Your task to perform on an android device: manage bookmarks in the chrome app Image 0: 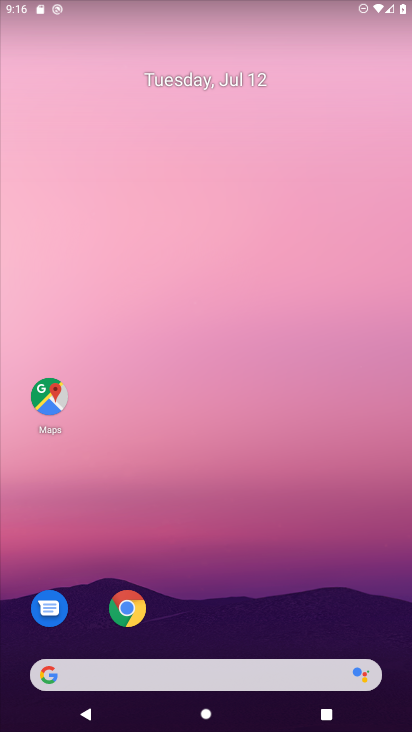
Step 0: click (130, 617)
Your task to perform on an android device: manage bookmarks in the chrome app Image 1: 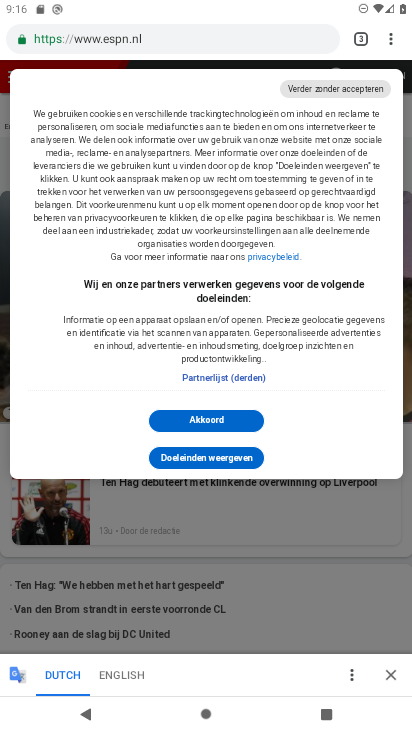
Step 1: click (382, 38)
Your task to perform on an android device: manage bookmarks in the chrome app Image 2: 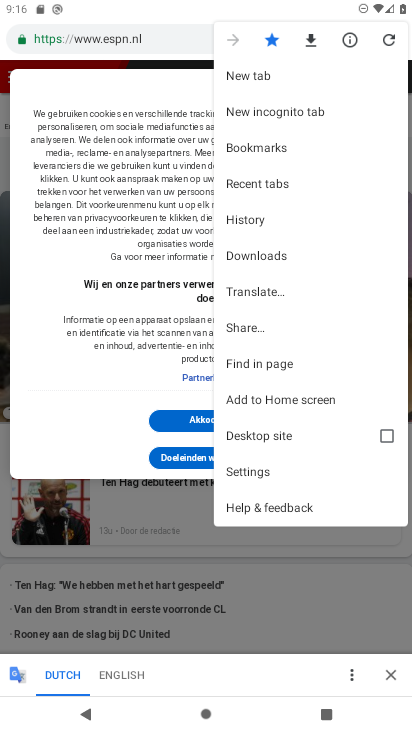
Step 2: click (268, 160)
Your task to perform on an android device: manage bookmarks in the chrome app Image 3: 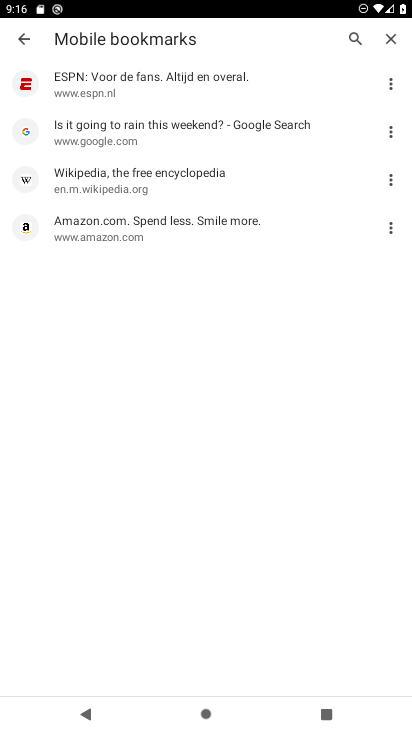
Step 3: click (388, 179)
Your task to perform on an android device: manage bookmarks in the chrome app Image 4: 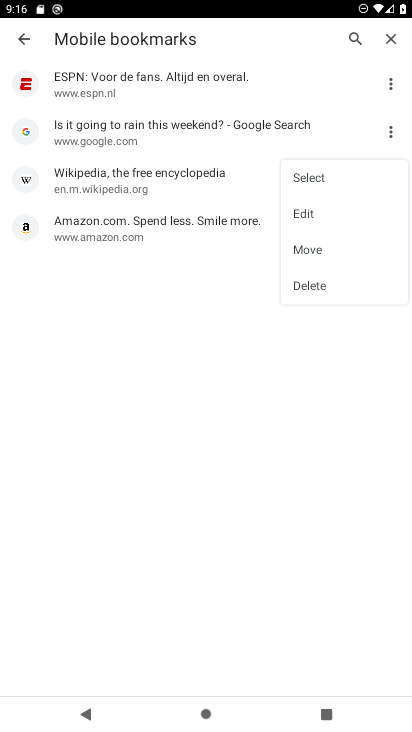
Step 4: click (308, 286)
Your task to perform on an android device: manage bookmarks in the chrome app Image 5: 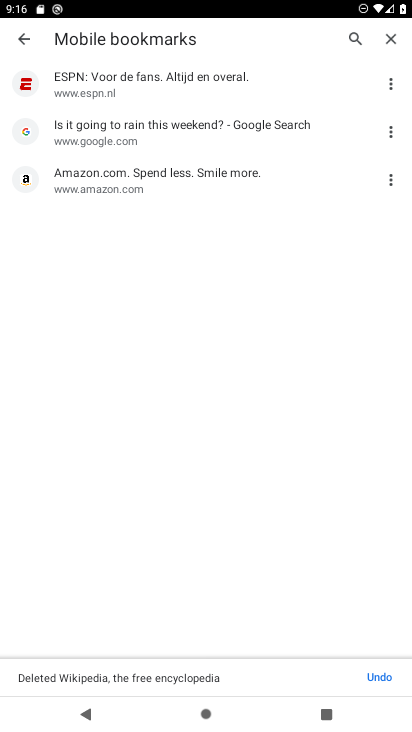
Step 5: task complete